Your task to perform on an android device: uninstall "Adobe Express: Graphic Design" Image 0: 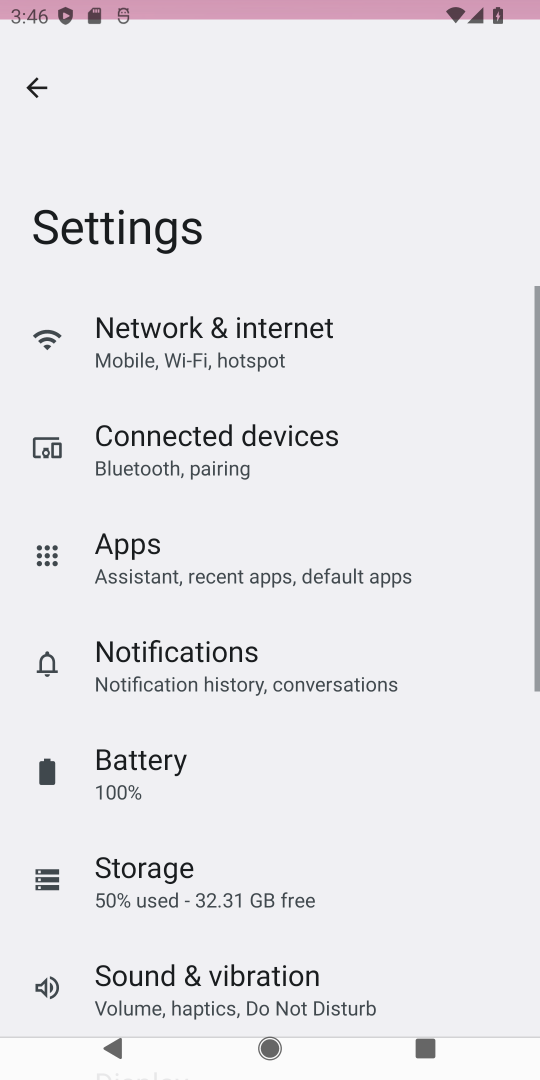
Step 0: press home button
Your task to perform on an android device: uninstall "Adobe Express: Graphic Design" Image 1: 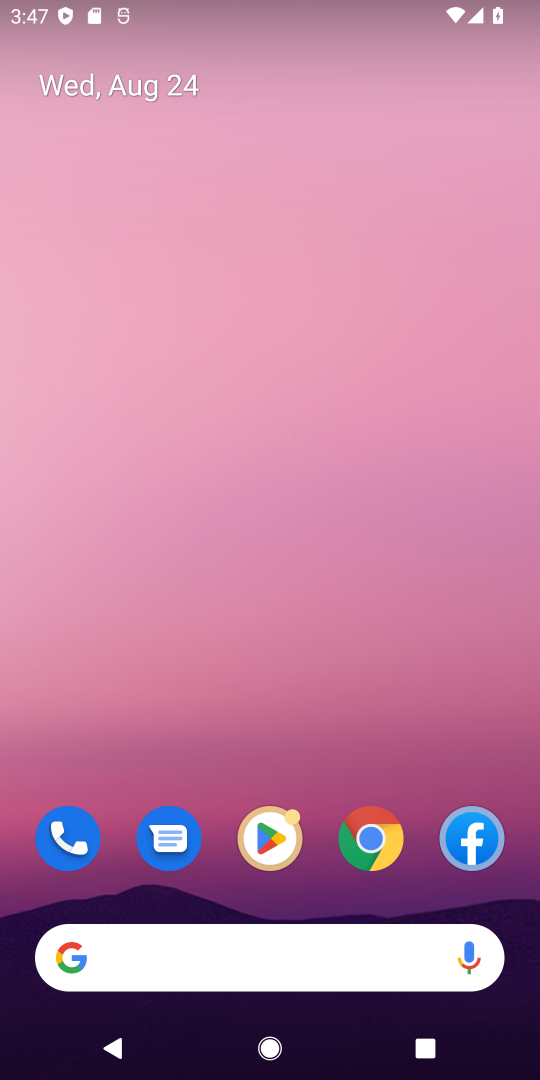
Step 1: click (263, 828)
Your task to perform on an android device: uninstall "Adobe Express: Graphic Design" Image 2: 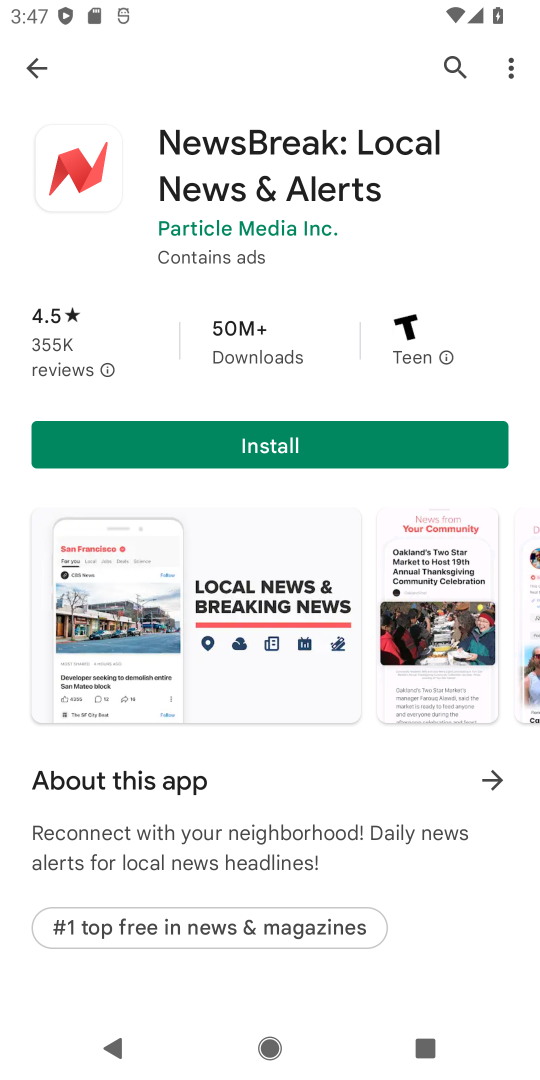
Step 2: click (38, 64)
Your task to perform on an android device: uninstall "Adobe Express: Graphic Design" Image 3: 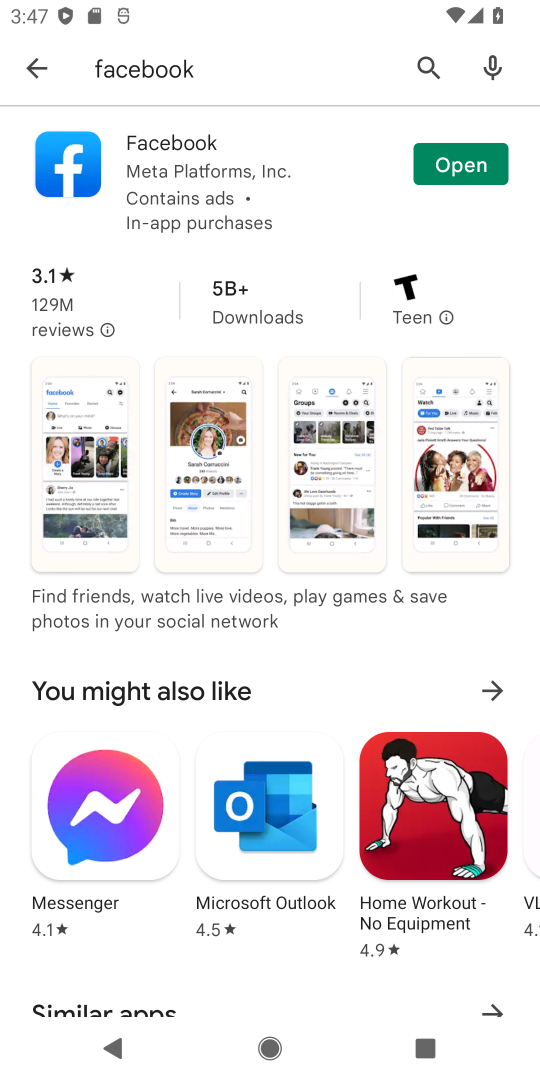
Step 3: click (427, 62)
Your task to perform on an android device: uninstall "Adobe Express: Graphic Design" Image 4: 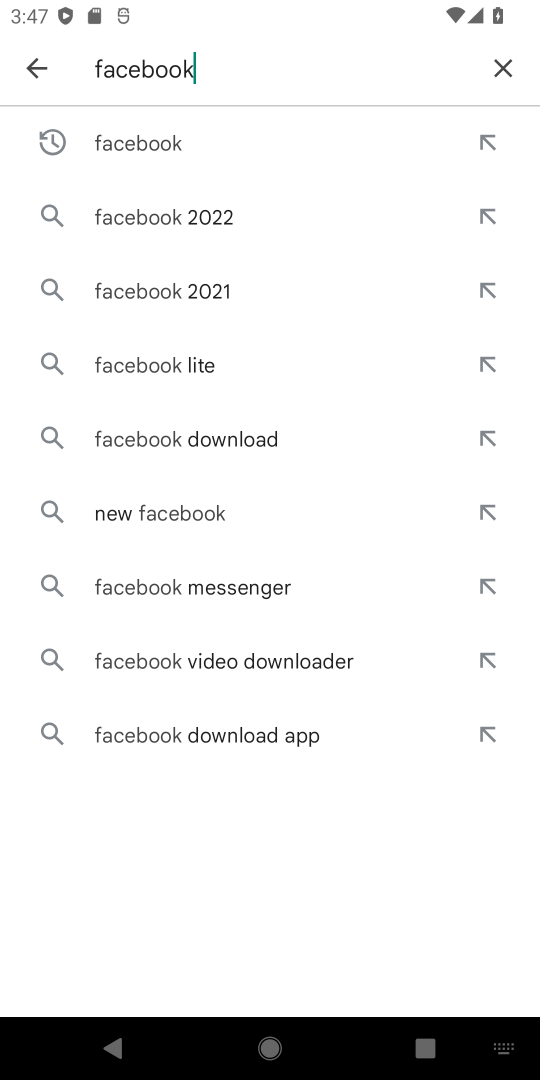
Step 4: click (493, 67)
Your task to perform on an android device: uninstall "Adobe Express: Graphic Design" Image 5: 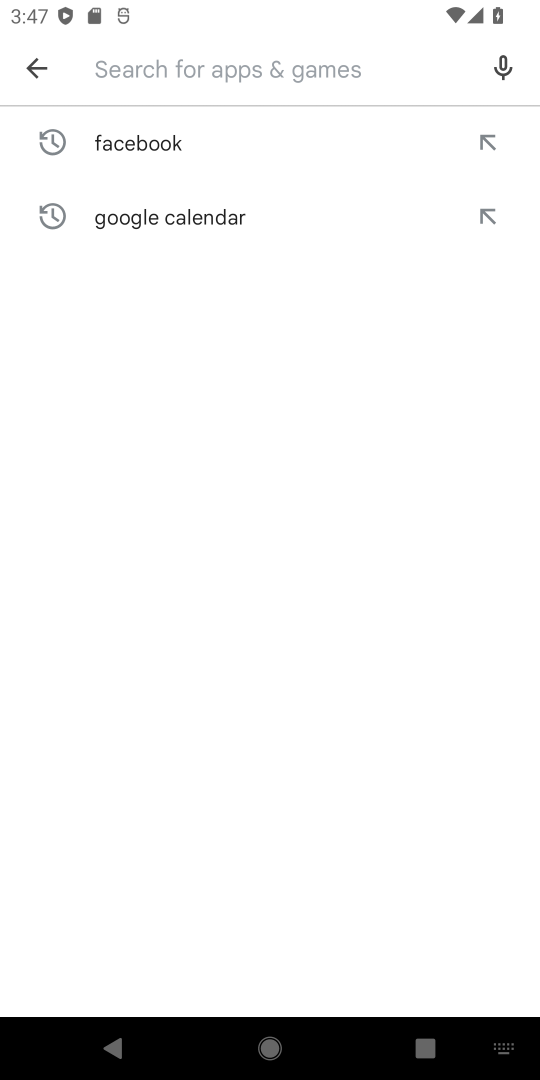
Step 5: type "Adobe Express: Graphic Design"
Your task to perform on an android device: uninstall "Adobe Express: Graphic Design" Image 6: 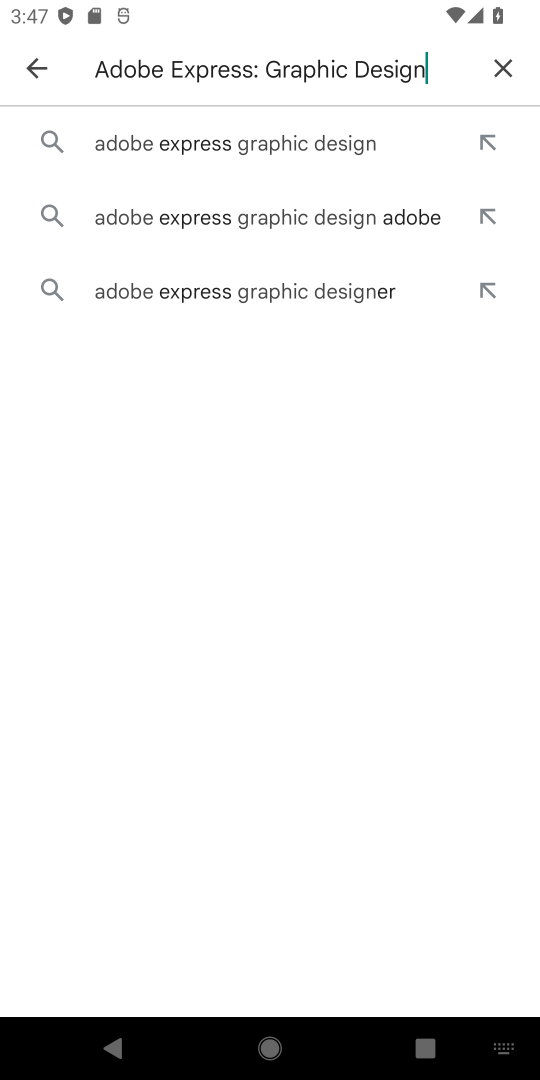
Step 6: task complete